Your task to perform on an android device: turn off javascript in the chrome app Image 0: 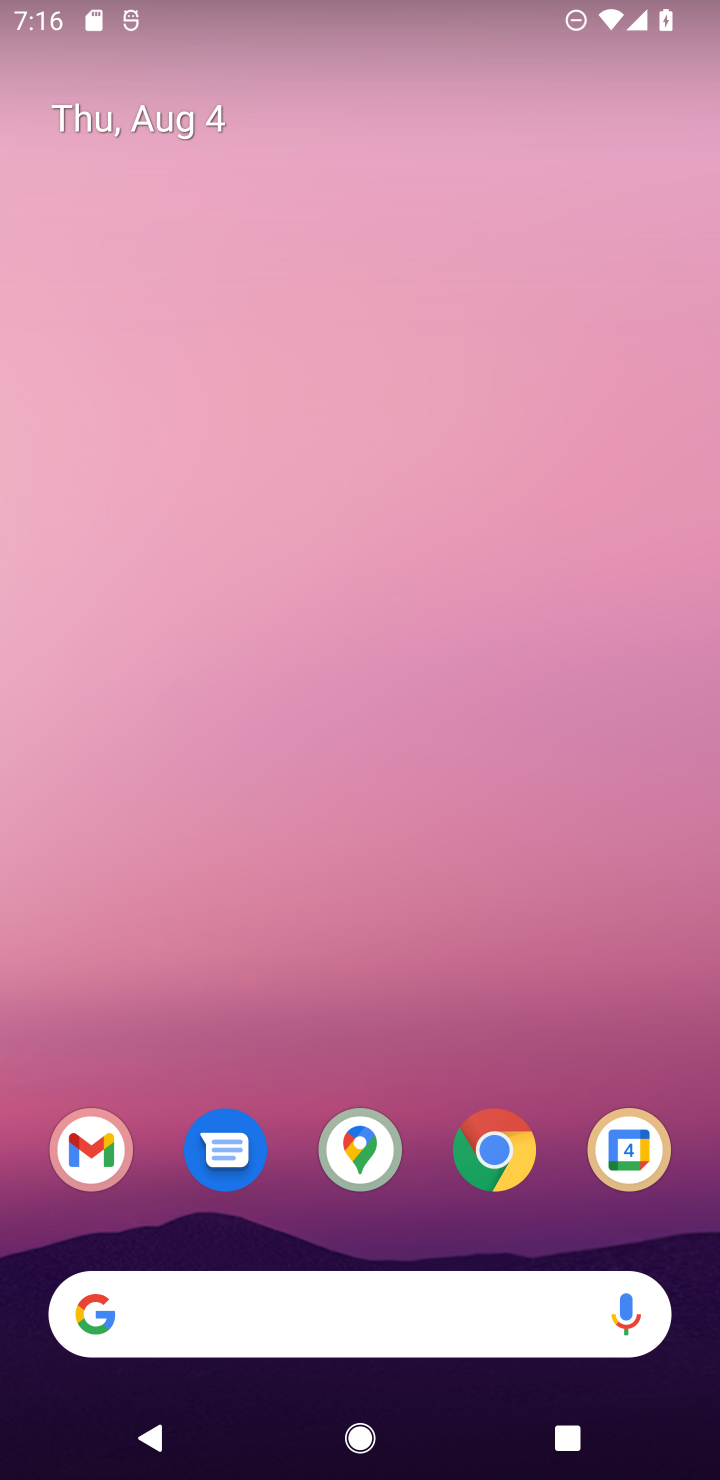
Step 0: click (416, 81)
Your task to perform on an android device: turn off javascript in the chrome app Image 1: 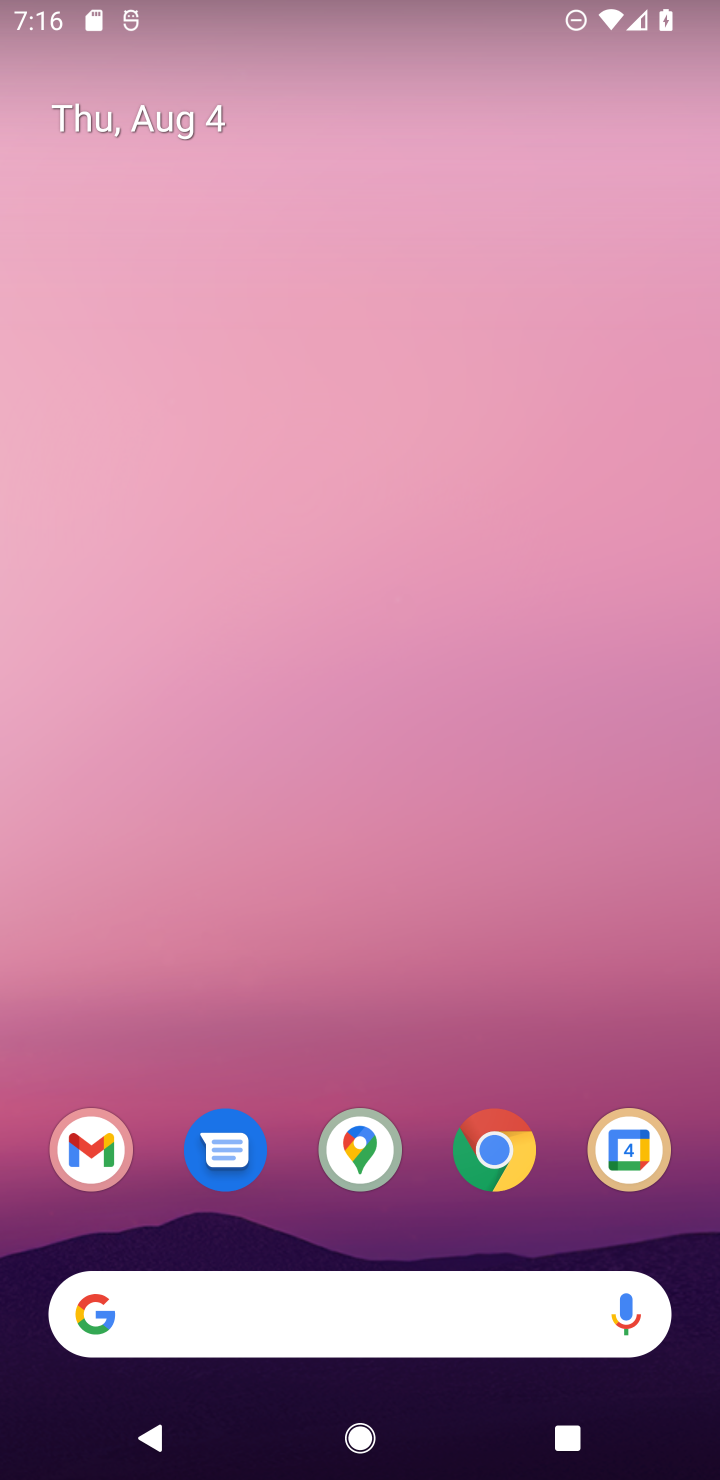
Step 1: drag from (350, 1285) to (495, 200)
Your task to perform on an android device: turn off javascript in the chrome app Image 2: 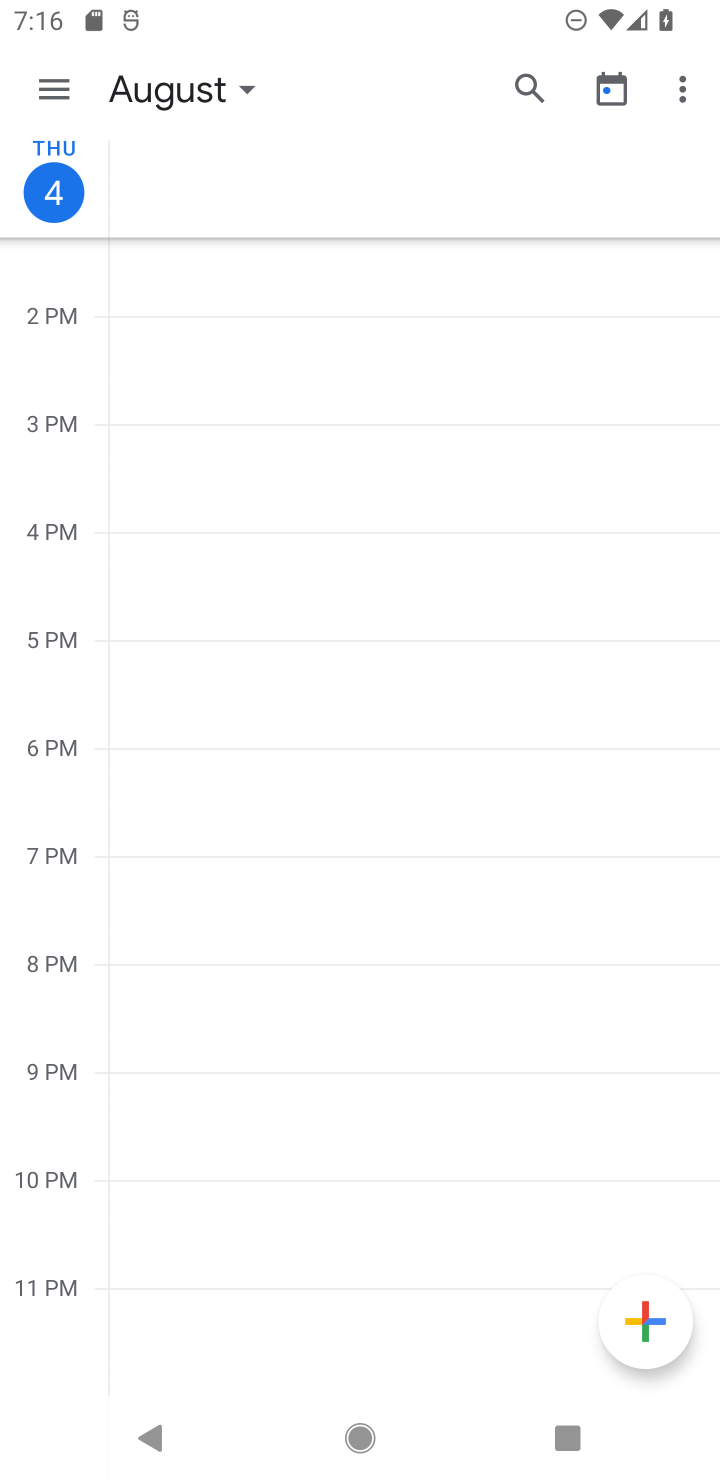
Step 2: press home button
Your task to perform on an android device: turn off javascript in the chrome app Image 3: 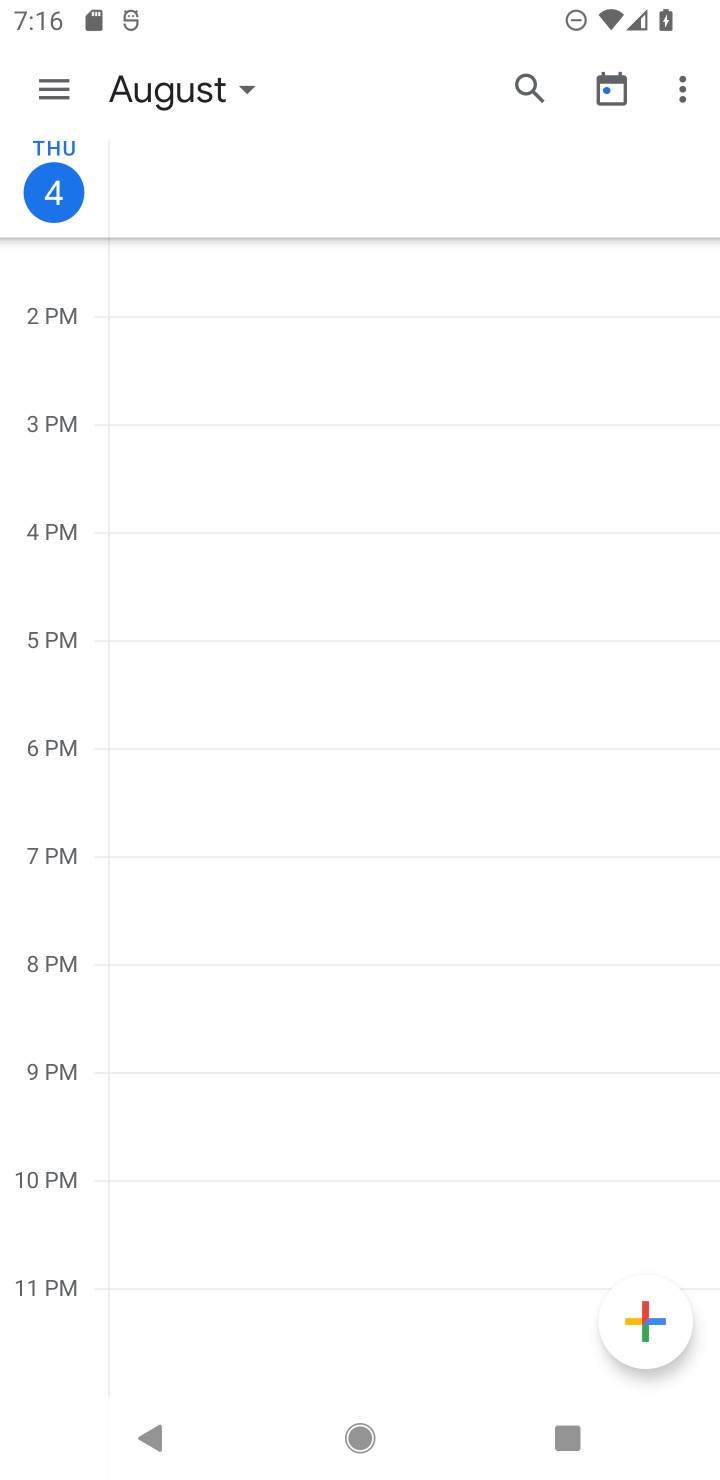
Step 3: press home button
Your task to perform on an android device: turn off javascript in the chrome app Image 4: 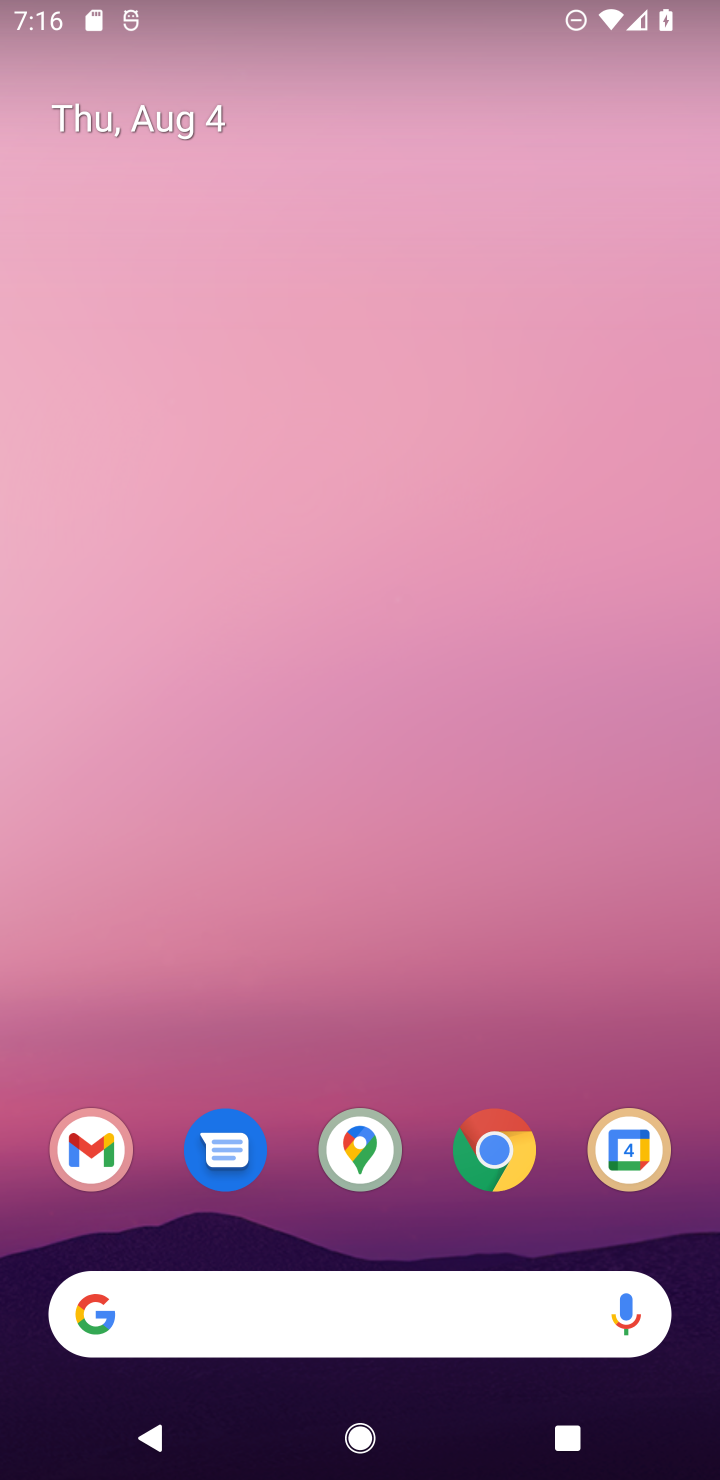
Step 4: drag from (351, 1281) to (532, 56)
Your task to perform on an android device: turn off javascript in the chrome app Image 5: 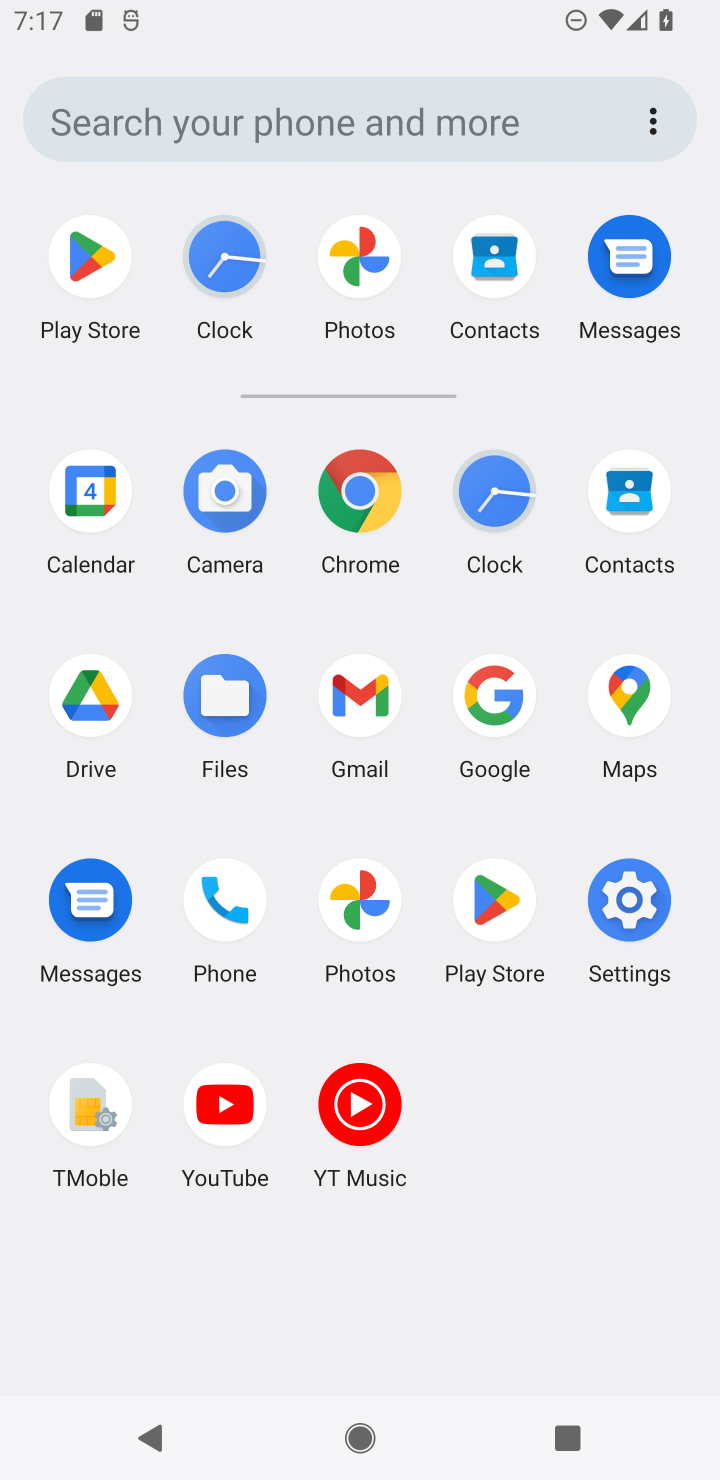
Step 5: click (347, 480)
Your task to perform on an android device: turn off javascript in the chrome app Image 6: 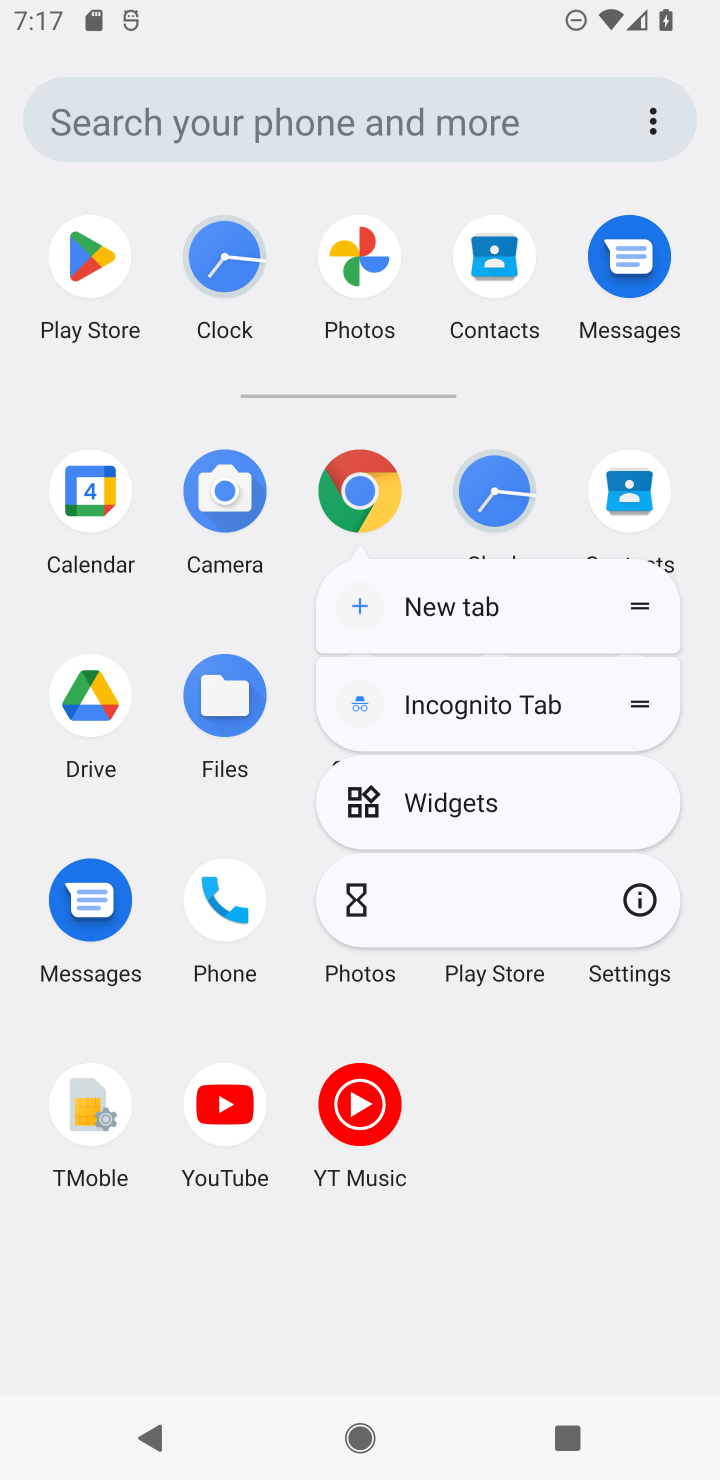
Step 6: click (367, 475)
Your task to perform on an android device: turn off javascript in the chrome app Image 7: 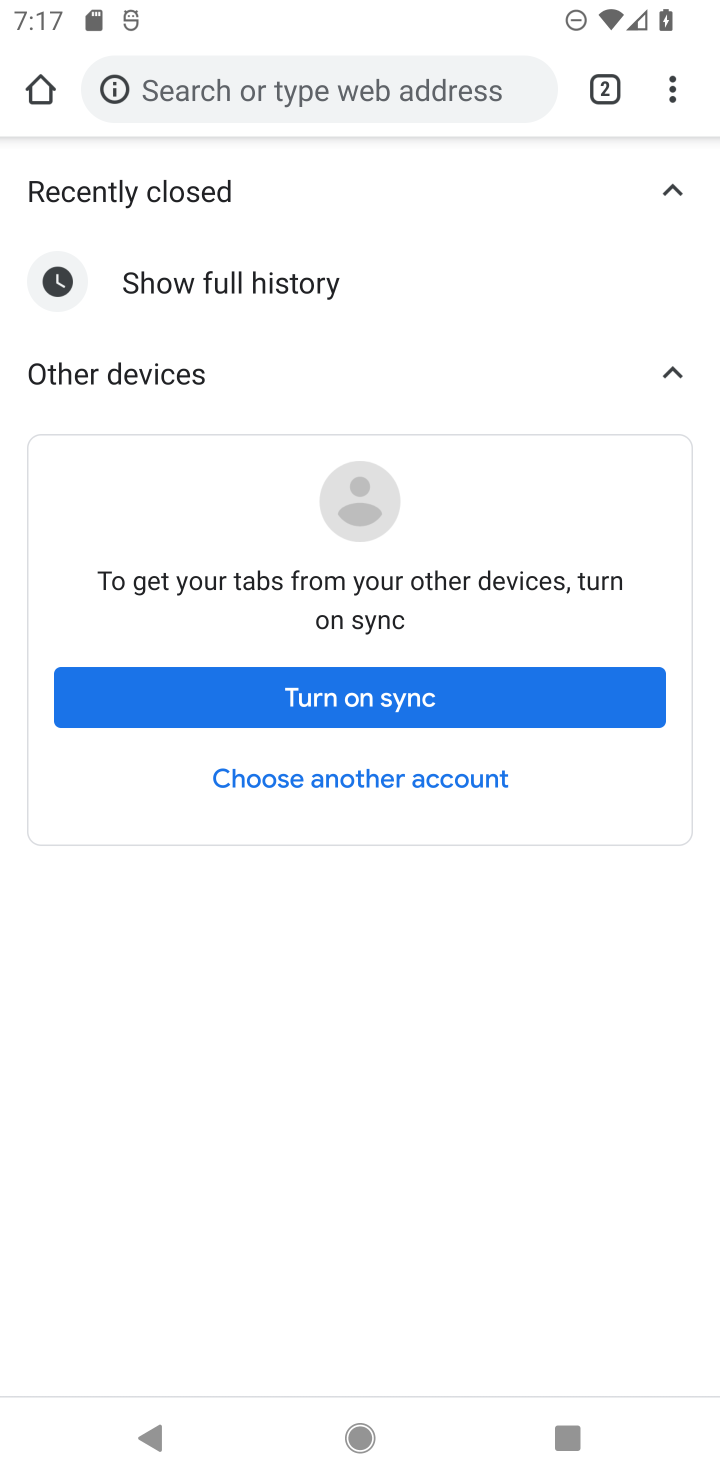
Step 7: click (661, 59)
Your task to perform on an android device: turn off javascript in the chrome app Image 8: 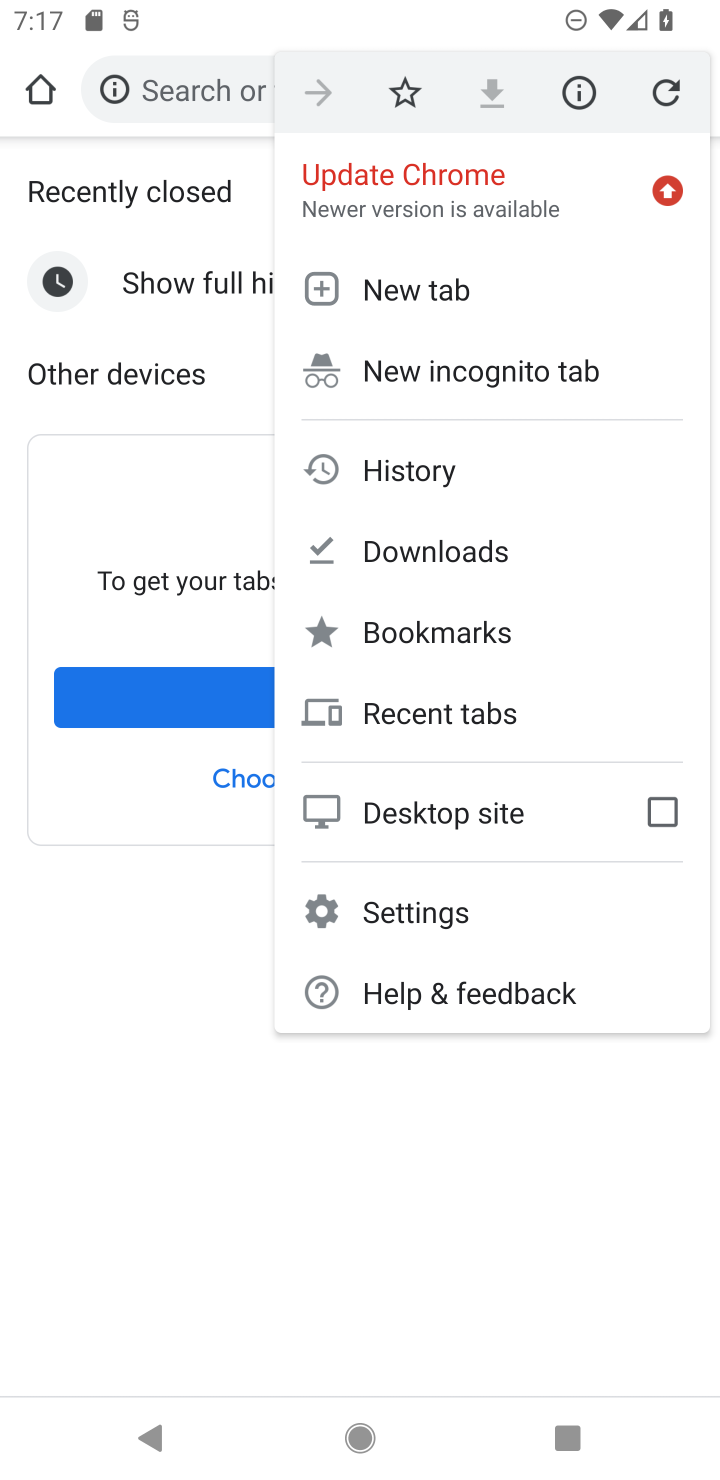
Step 8: click (434, 891)
Your task to perform on an android device: turn off javascript in the chrome app Image 9: 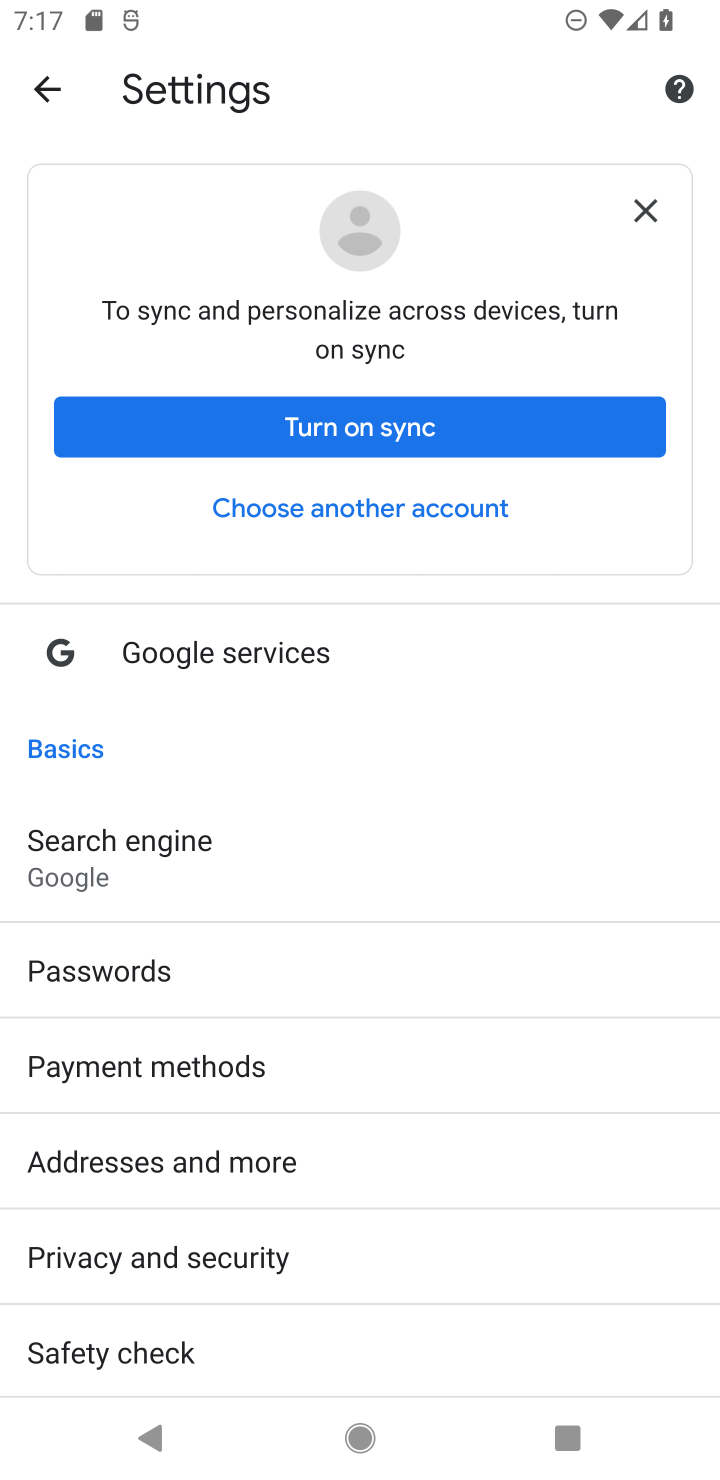
Step 9: drag from (296, 1292) to (295, 30)
Your task to perform on an android device: turn off javascript in the chrome app Image 10: 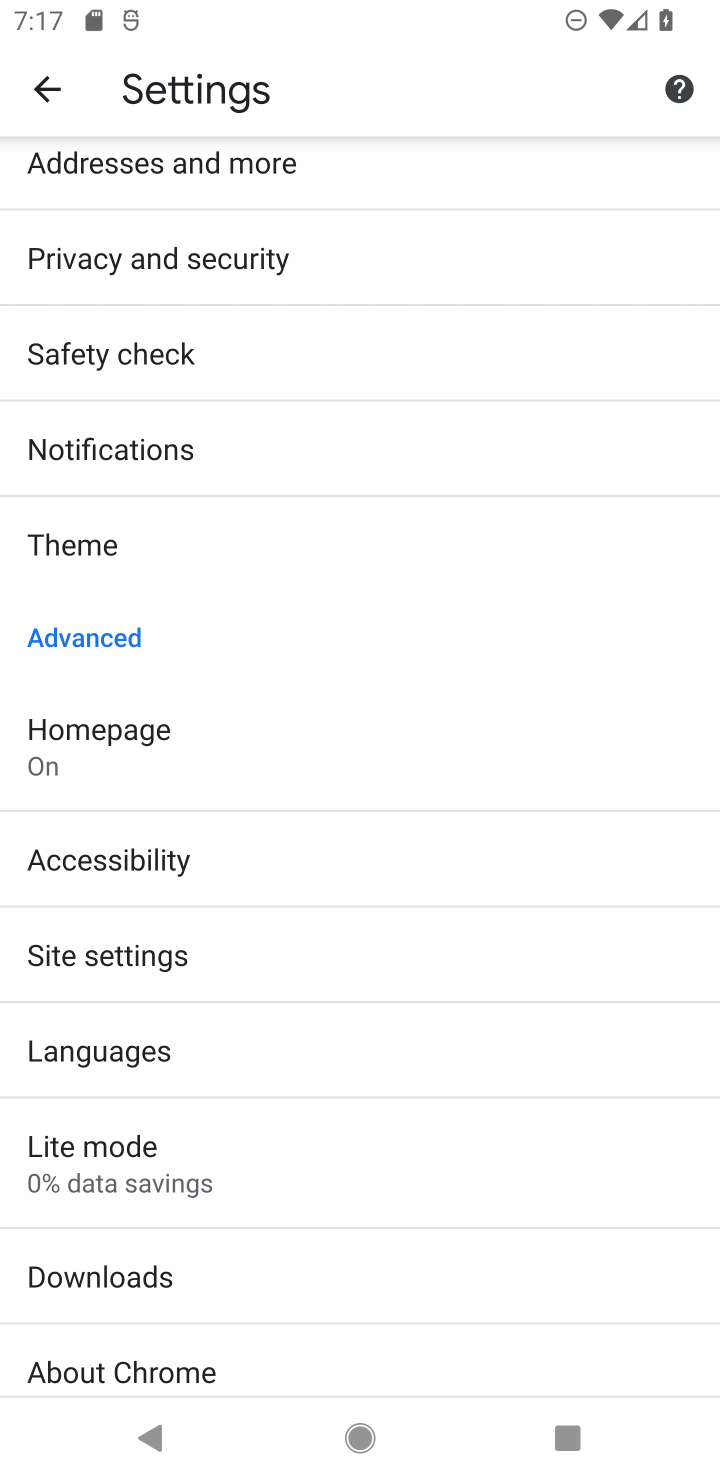
Step 10: click (148, 978)
Your task to perform on an android device: turn off javascript in the chrome app Image 11: 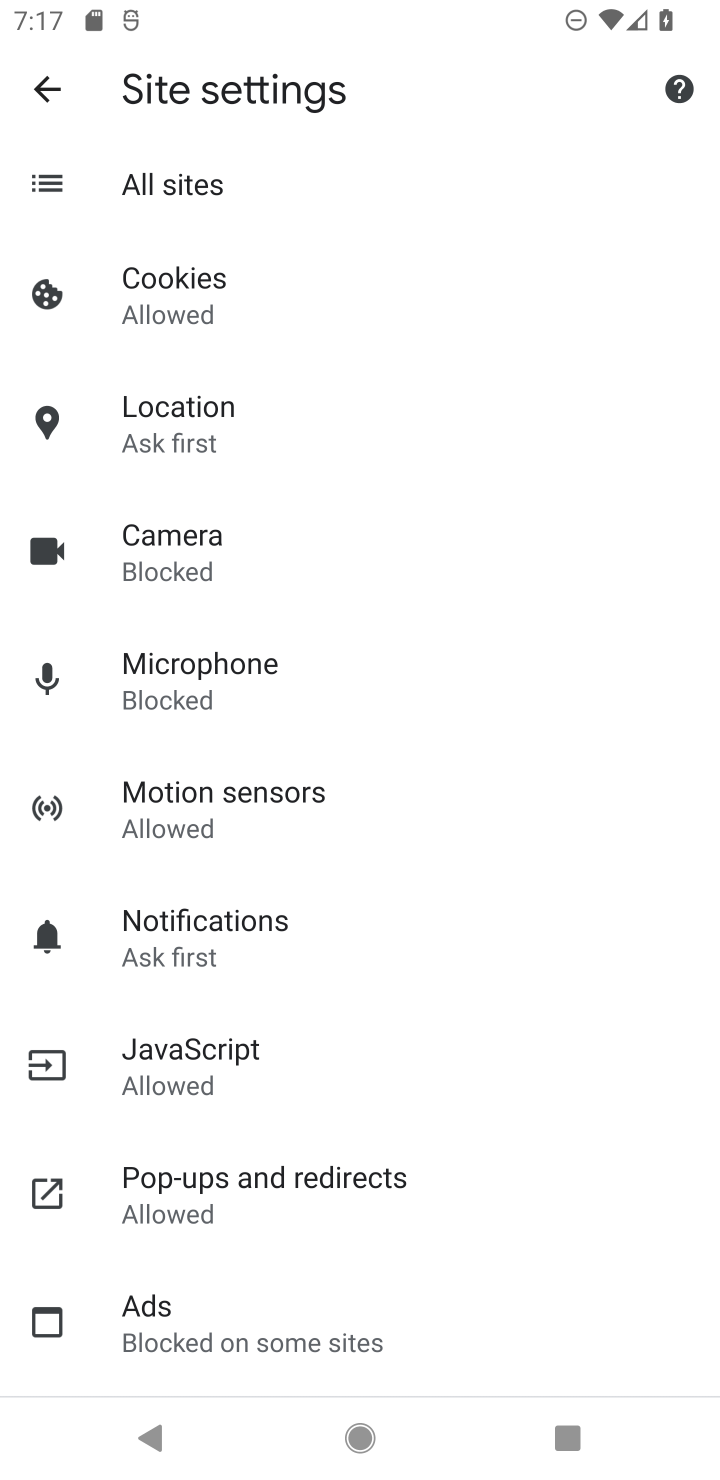
Step 11: click (235, 1075)
Your task to perform on an android device: turn off javascript in the chrome app Image 12: 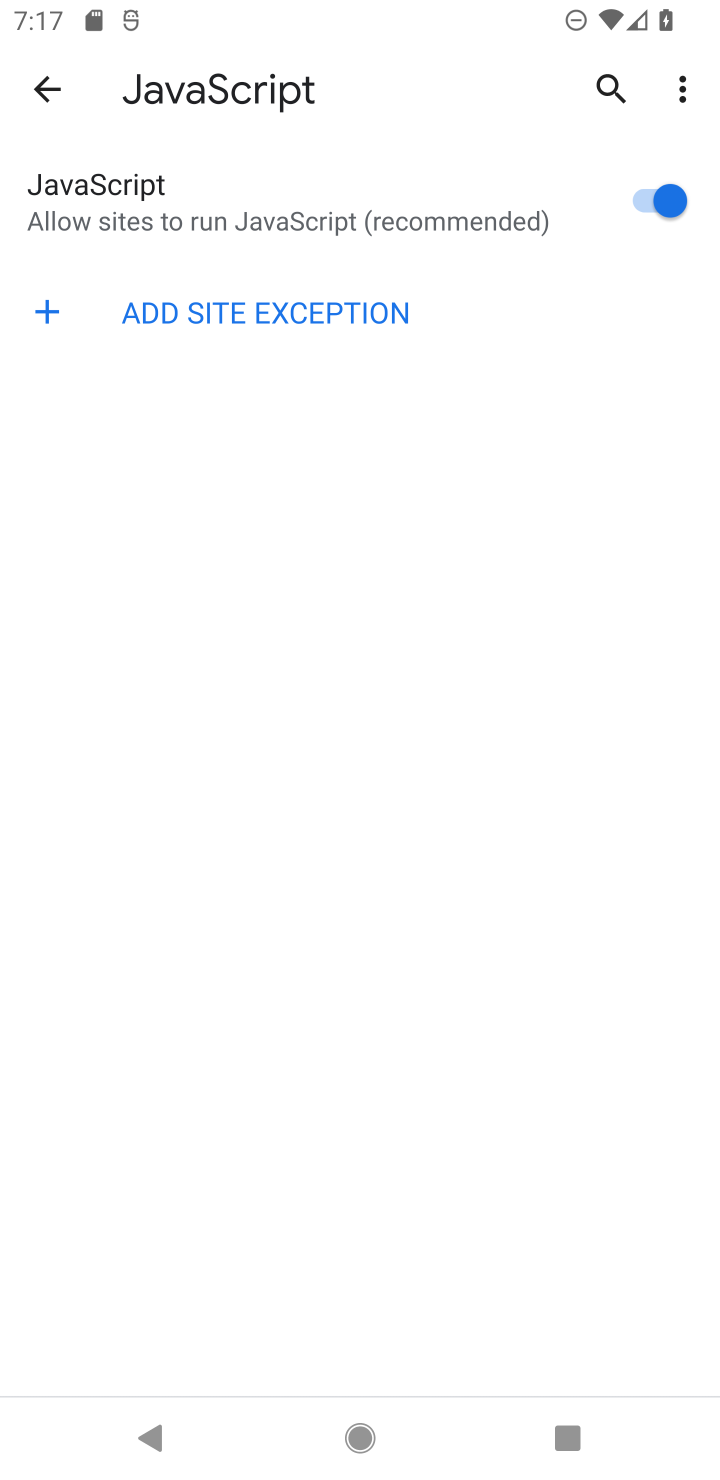
Step 12: click (655, 196)
Your task to perform on an android device: turn off javascript in the chrome app Image 13: 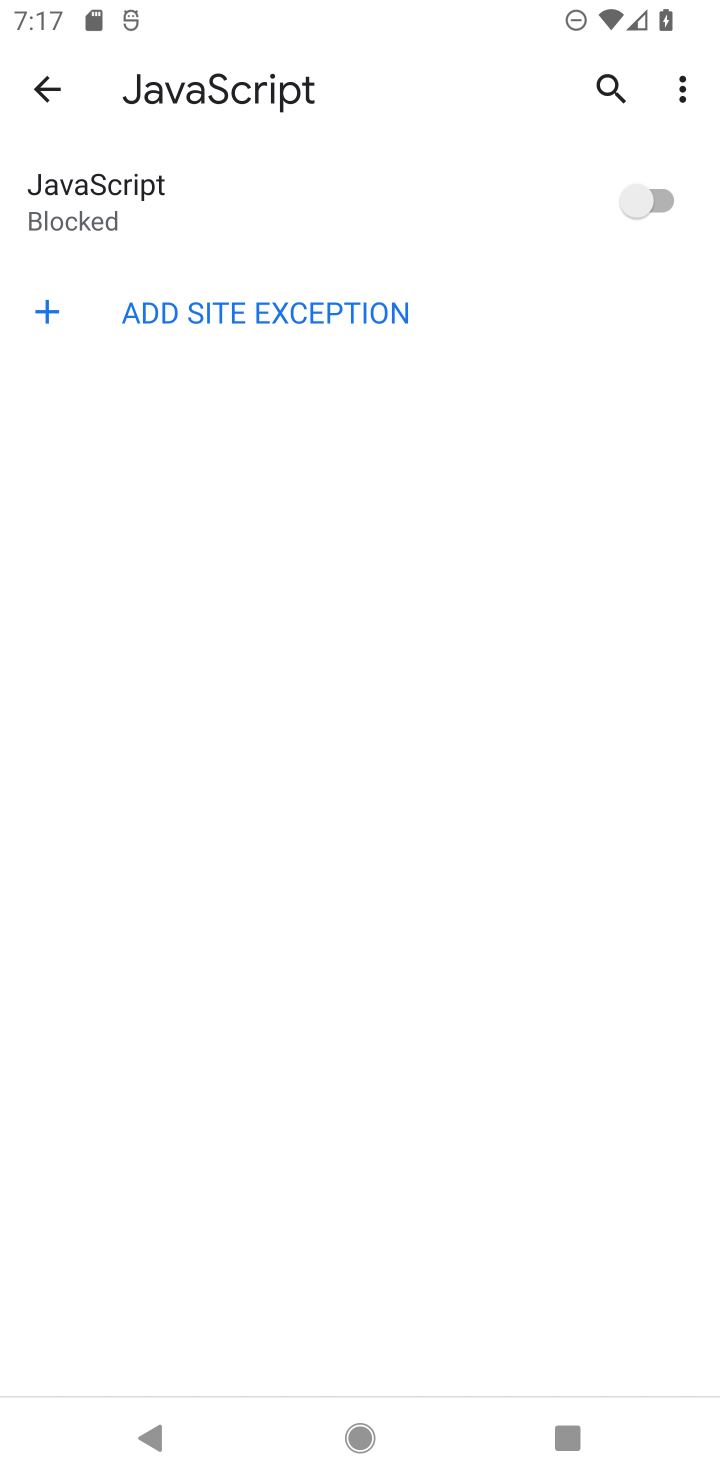
Step 13: task complete